Your task to perform on an android device: What's on my calendar tomorrow? Image 0: 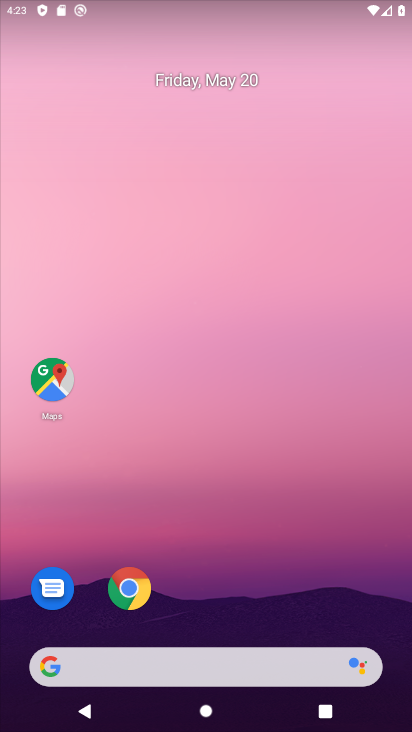
Step 0: drag from (269, 574) to (253, 117)
Your task to perform on an android device: What's on my calendar tomorrow? Image 1: 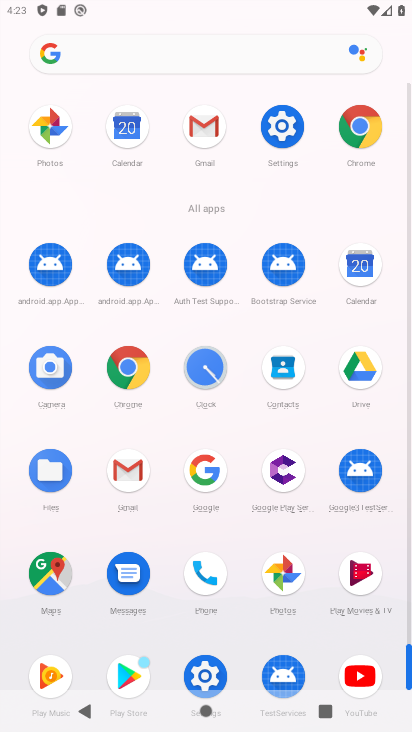
Step 1: click (358, 266)
Your task to perform on an android device: What's on my calendar tomorrow? Image 2: 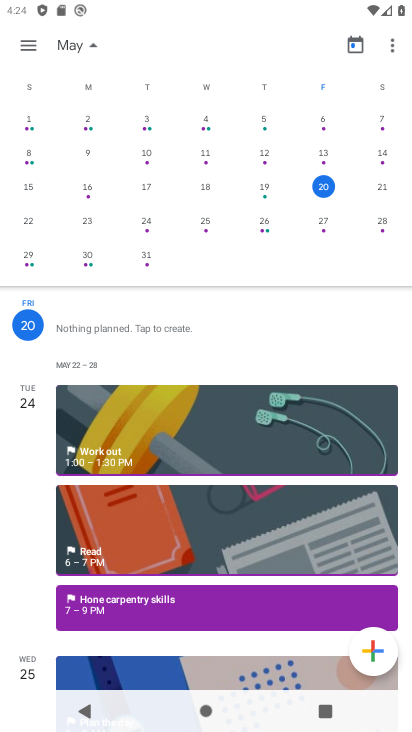
Step 2: click (386, 189)
Your task to perform on an android device: What's on my calendar tomorrow? Image 3: 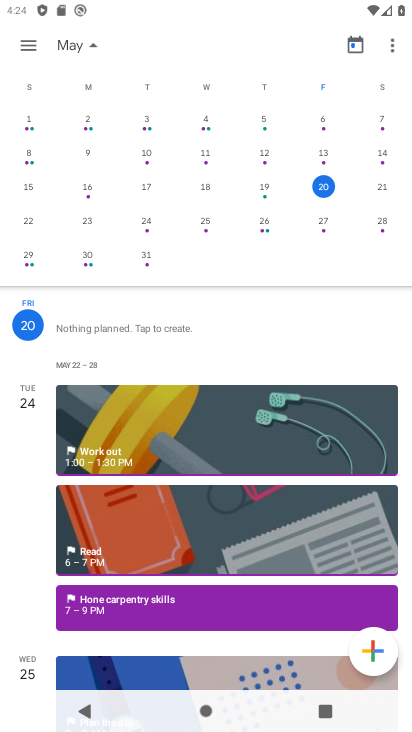
Step 3: click (380, 187)
Your task to perform on an android device: What's on my calendar tomorrow? Image 4: 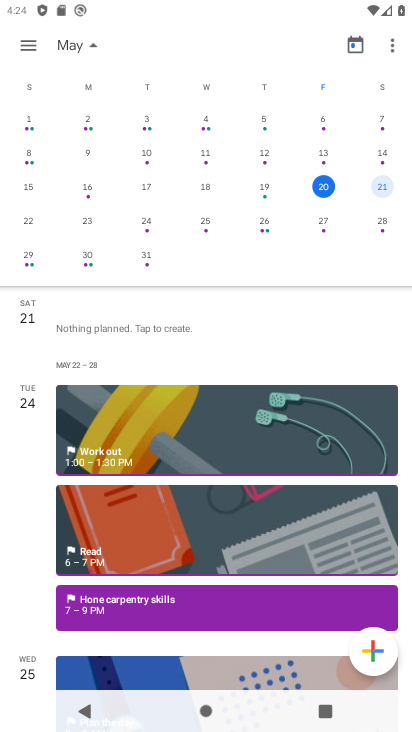
Step 4: task complete